Your task to perform on an android device: Search for Italian restaurants on Maps Image 0: 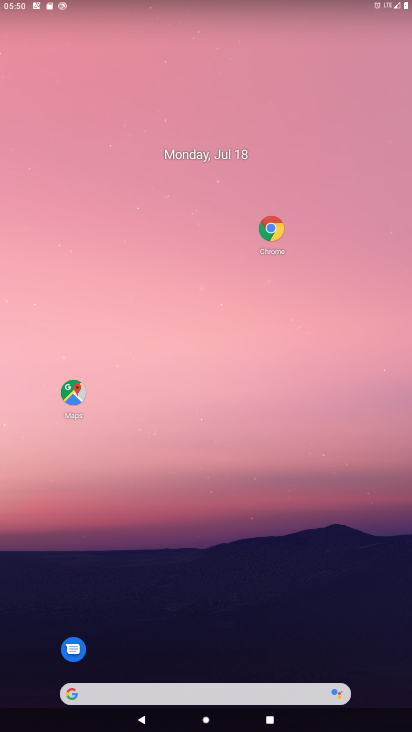
Step 0: click (89, 387)
Your task to perform on an android device: Search for Italian restaurants on Maps Image 1: 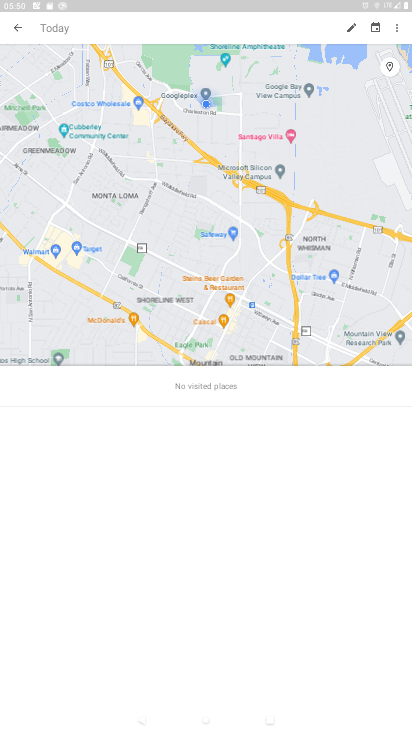
Step 1: click (20, 26)
Your task to perform on an android device: Search for Italian restaurants on Maps Image 2: 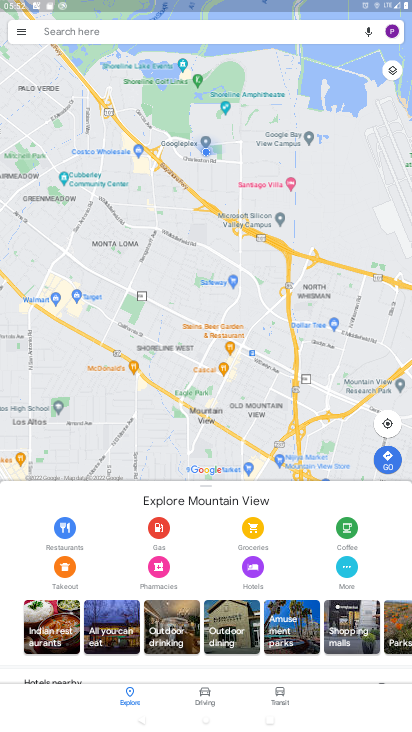
Step 2: click (204, 30)
Your task to perform on an android device: Search for Italian restaurants on Maps Image 3: 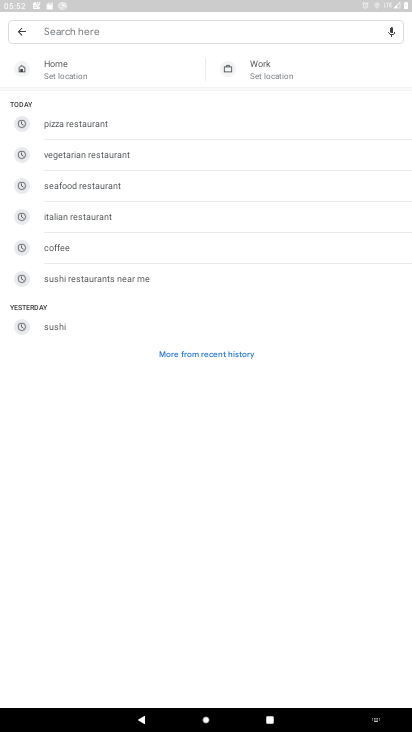
Step 3: click (36, 222)
Your task to perform on an android device: Search for Italian restaurants on Maps Image 4: 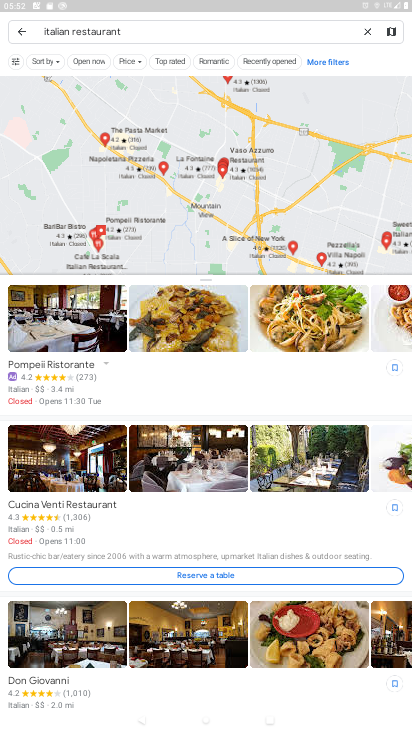
Step 4: task complete